Your task to perform on an android device: Go to privacy settings Image 0: 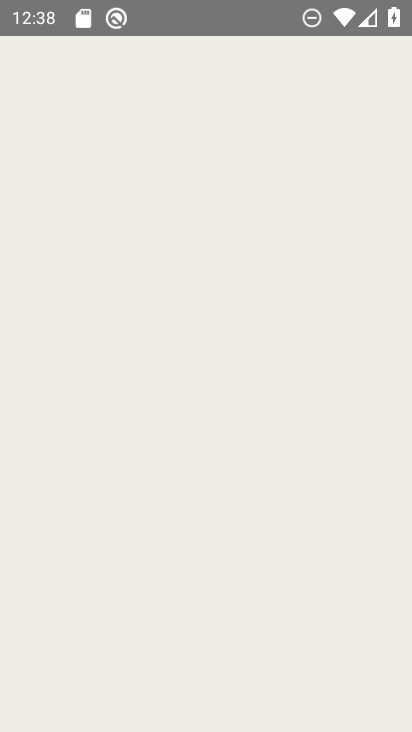
Step 0: press home button
Your task to perform on an android device: Go to privacy settings Image 1: 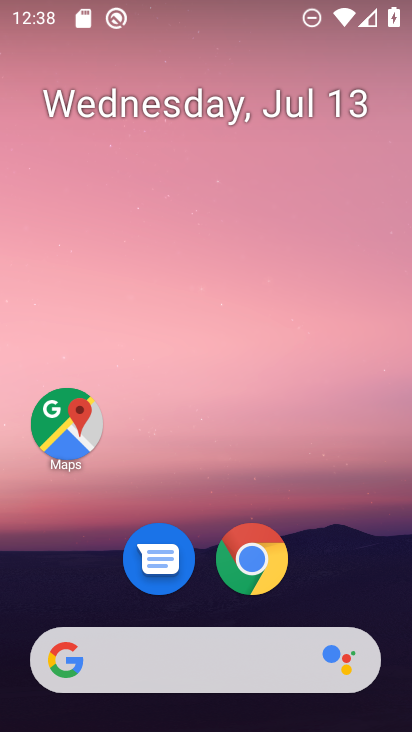
Step 1: drag from (213, 637) to (262, 184)
Your task to perform on an android device: Go to privacy settings Image 2: 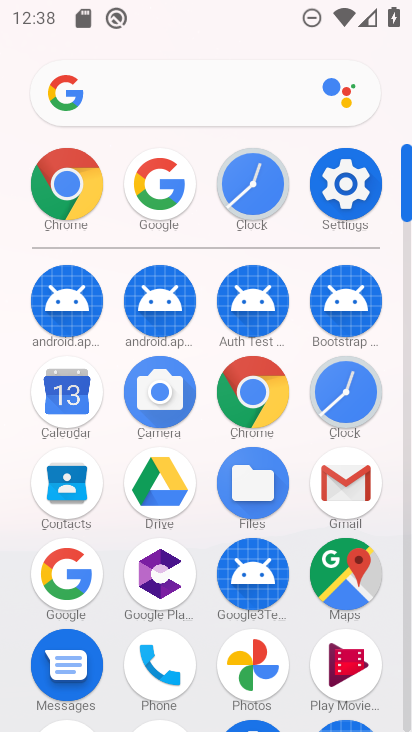
Step 2: click (345, 220)
Your task to perform on an android device: Go to privacy settings Image 3: 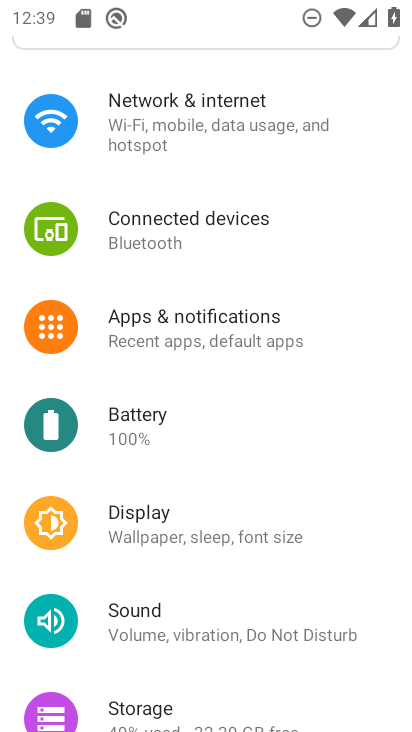
Step 3: drag from (243, 568) to (266, 402)
Your task to perform on an android device: Go to privacy settings Image 4: 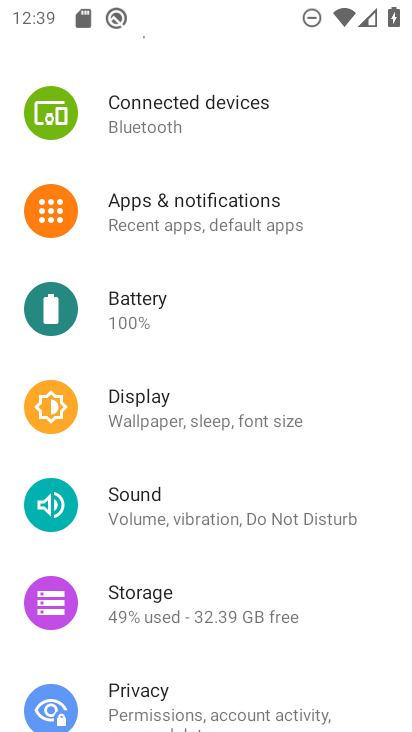
Step 4: drag from (201, 584) to (230, 431)
Your task to perform on an android device: Go to privacy settings Image 5: 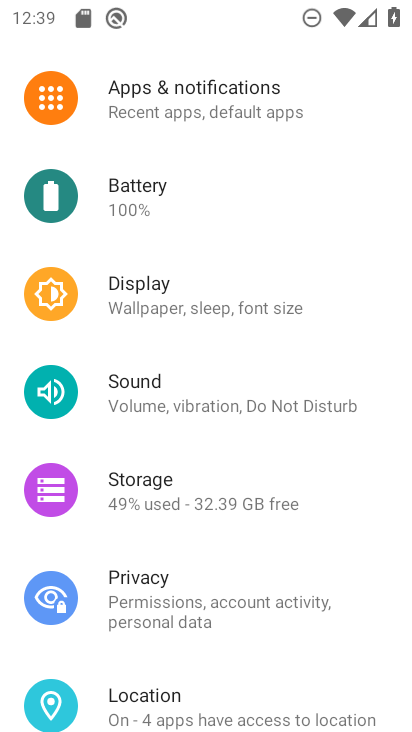
Step 5: click (222, 598)
Your task to perform on an android device: Go to privacy settings Image 6: 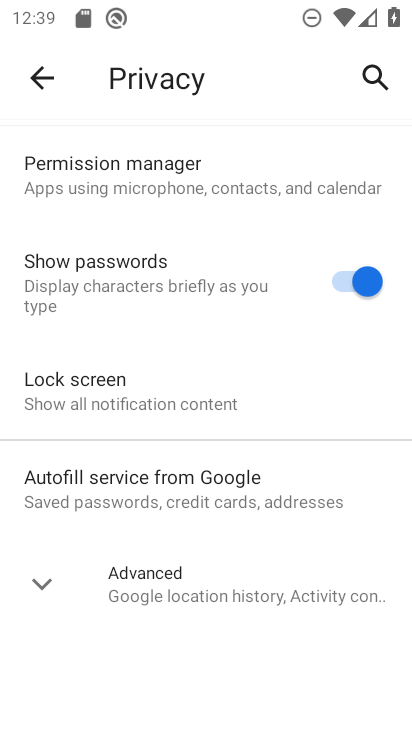
Step 6: task complete